Your task to perform on an android device: Open Amazon Image 0: 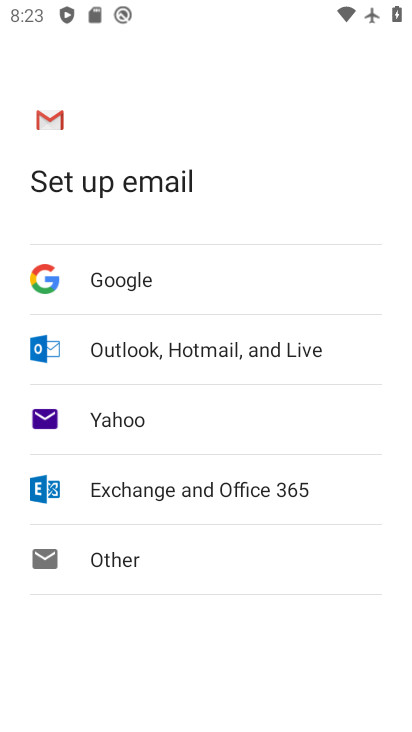
Step 0: press home button
Your task to perform on an android device: Open Amazon Image 1: 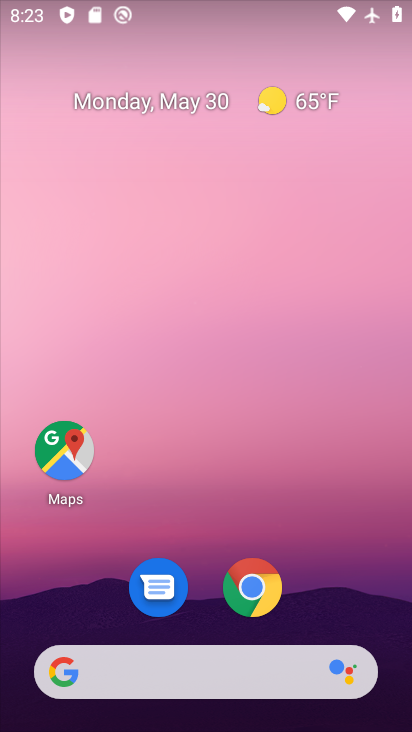
Step 1: click (259, 588)
Your task to perform on an android device: Open Amazon Image 2: 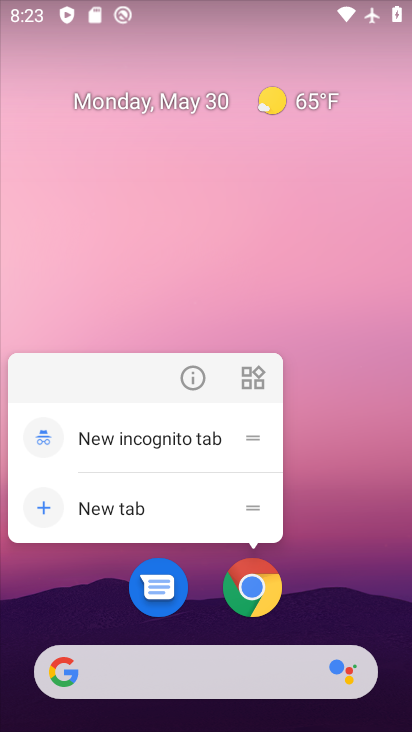
Step 2: click (251, 592)
Your task to perform on an android device: Open Amazon Image 3: 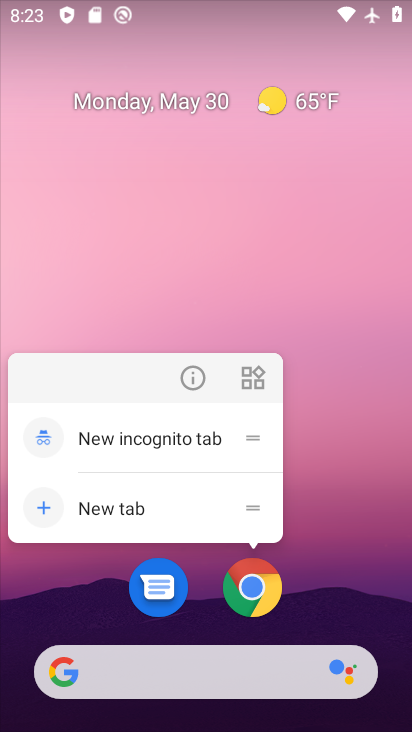
Step 3: click (254, 589)
Your task to perform on an android device: Open Amazon Image 4: 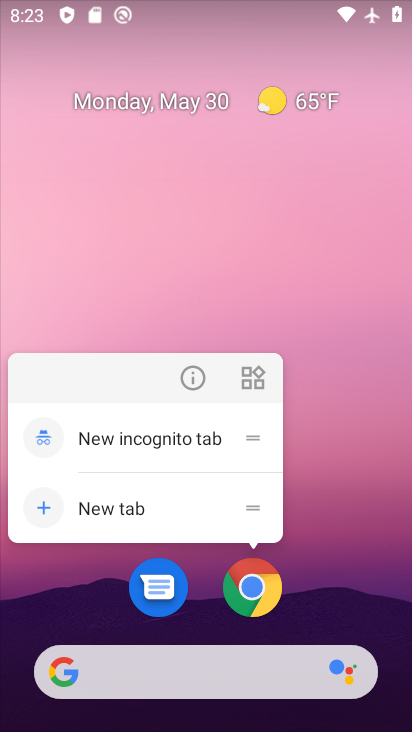
Step 4: click (254, 589)
Your task to perform on an android device: Open Amazon Image 5: 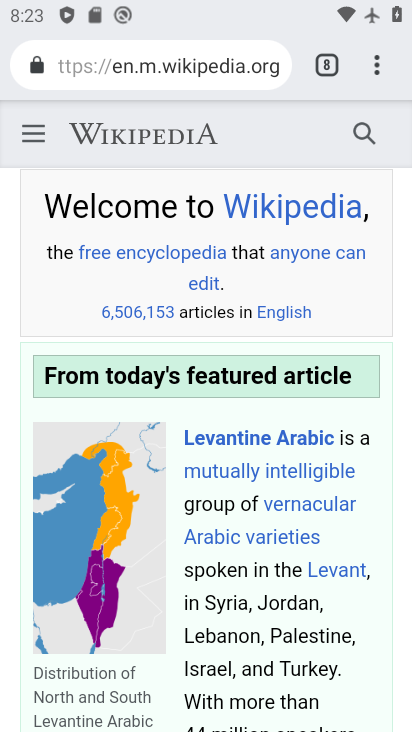
Step 5: drag from (375, 64) to (181, 117)
Your task to perform on an android device: Open Amazon Image 6: 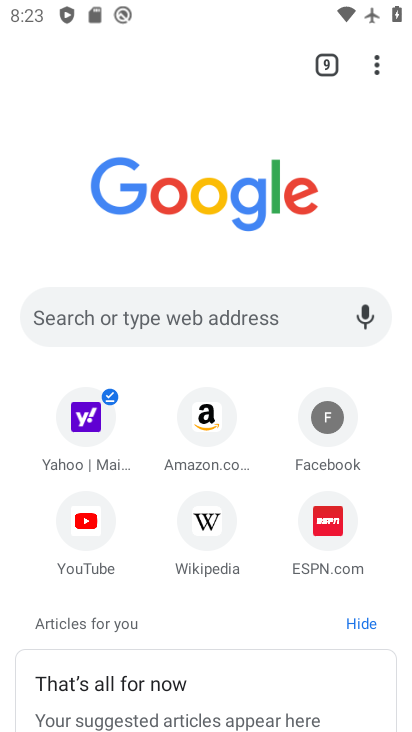
Step 6: click (206, 427)
Your task to perform on an android device: Open Amazon Image 7: 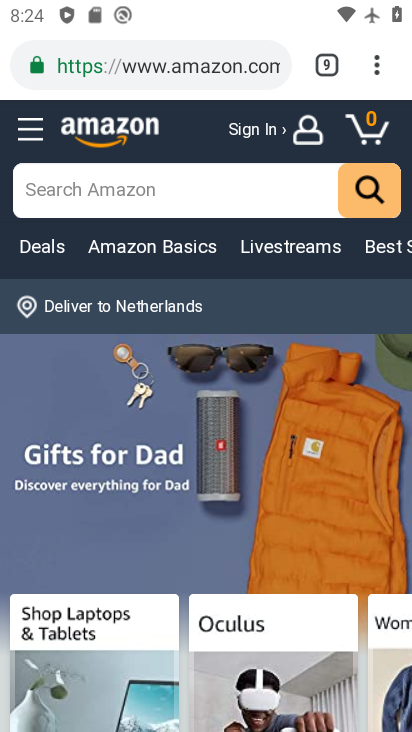
Step 7: task complete